Your task to perform on an android device: see tabs open on other devices in the chrome app Image 0: 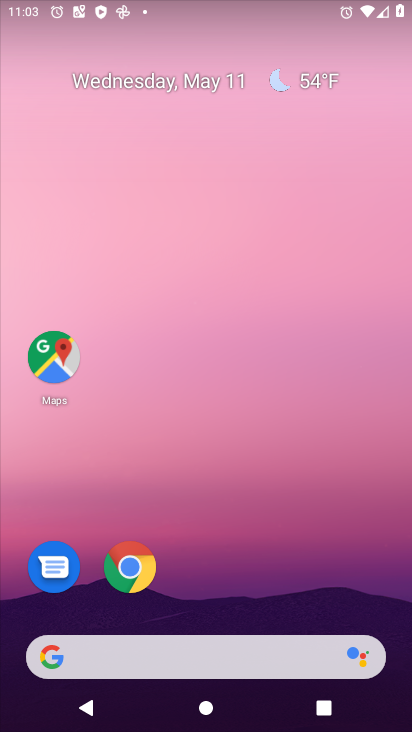
Step 0: drag from (238, 604) to (160, 9)
Your task to perform on an android device: see tabs open on other devices in the chrome app Image 1: 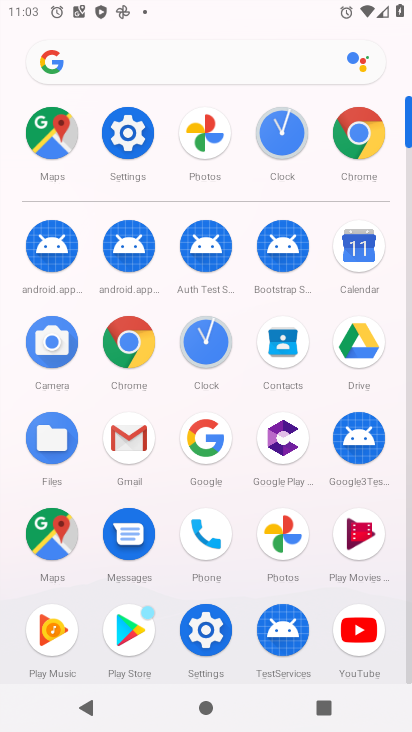
Step 1: click (142, 351)
Your task to perform on an android device: see tabs open on other devices in the chrome app Image 2: 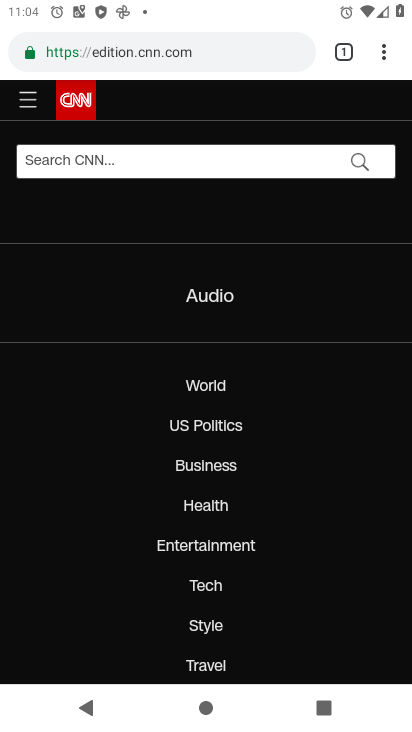
Step 2: click (395, 56)
Your task to perform on an android device: see tabs open on other devices in the chrome app Image 3: 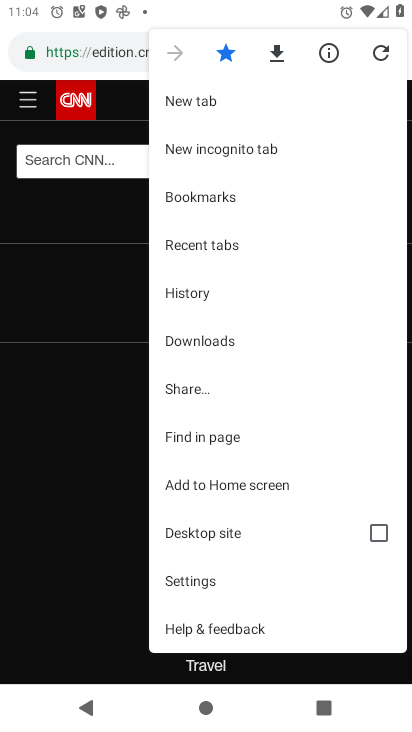
Step 3: click (224, 248)
Your task to perform on an android device: see tabs open on other devices in the chrome app Image 4: 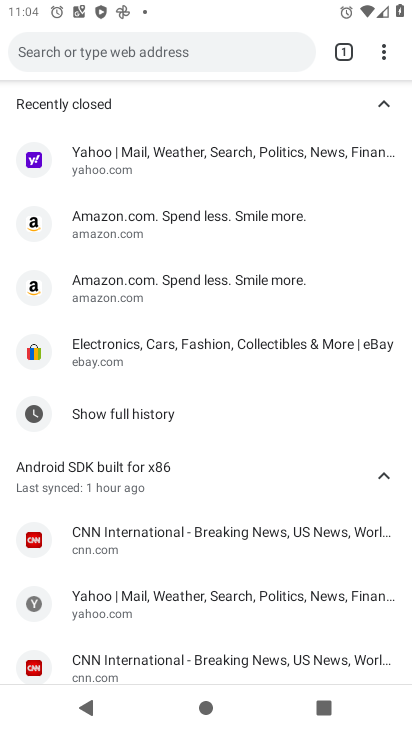
Step 4: task complete